Your task to perform on an android device: Go to wifi settings Image 0: 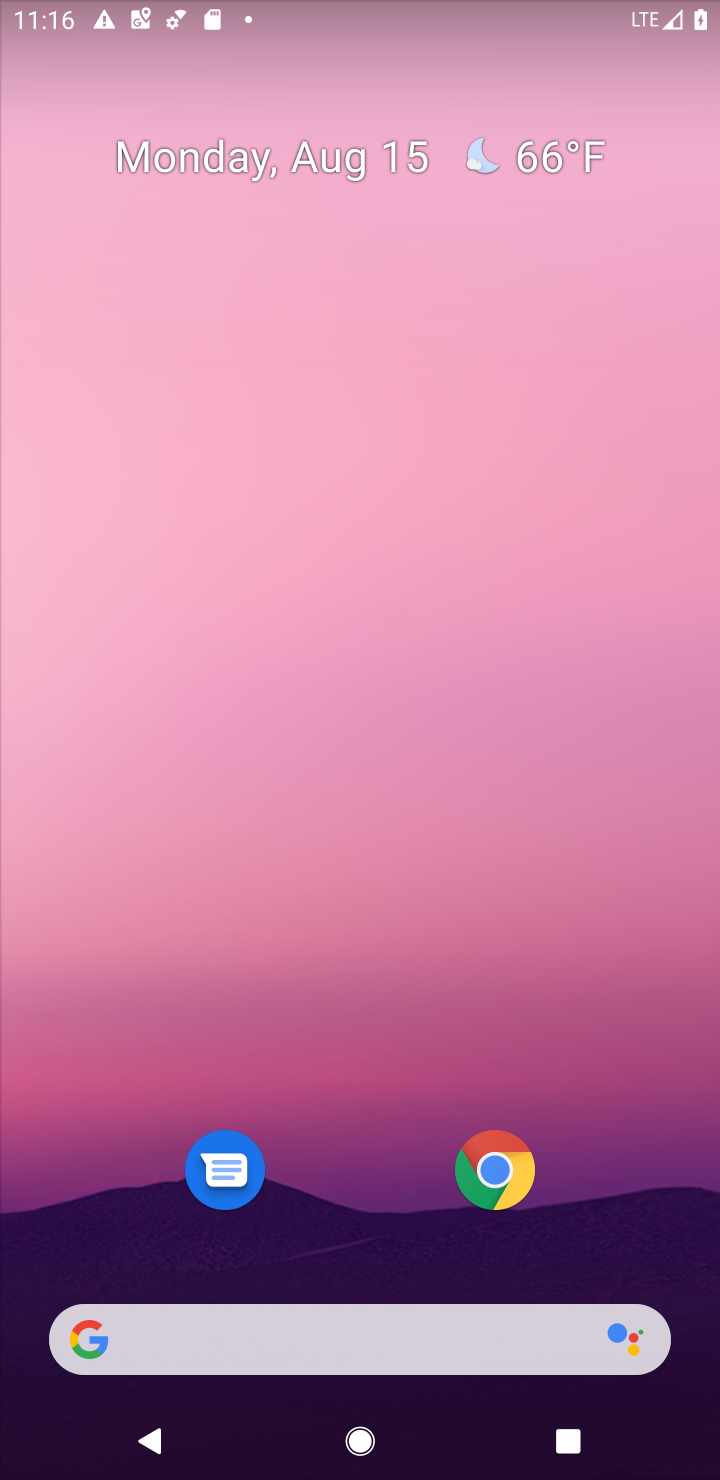
Step 0: drag from (389, 1280) to (431, 1)
Your task to perform on an android device: Go to wifi settings Image 1: 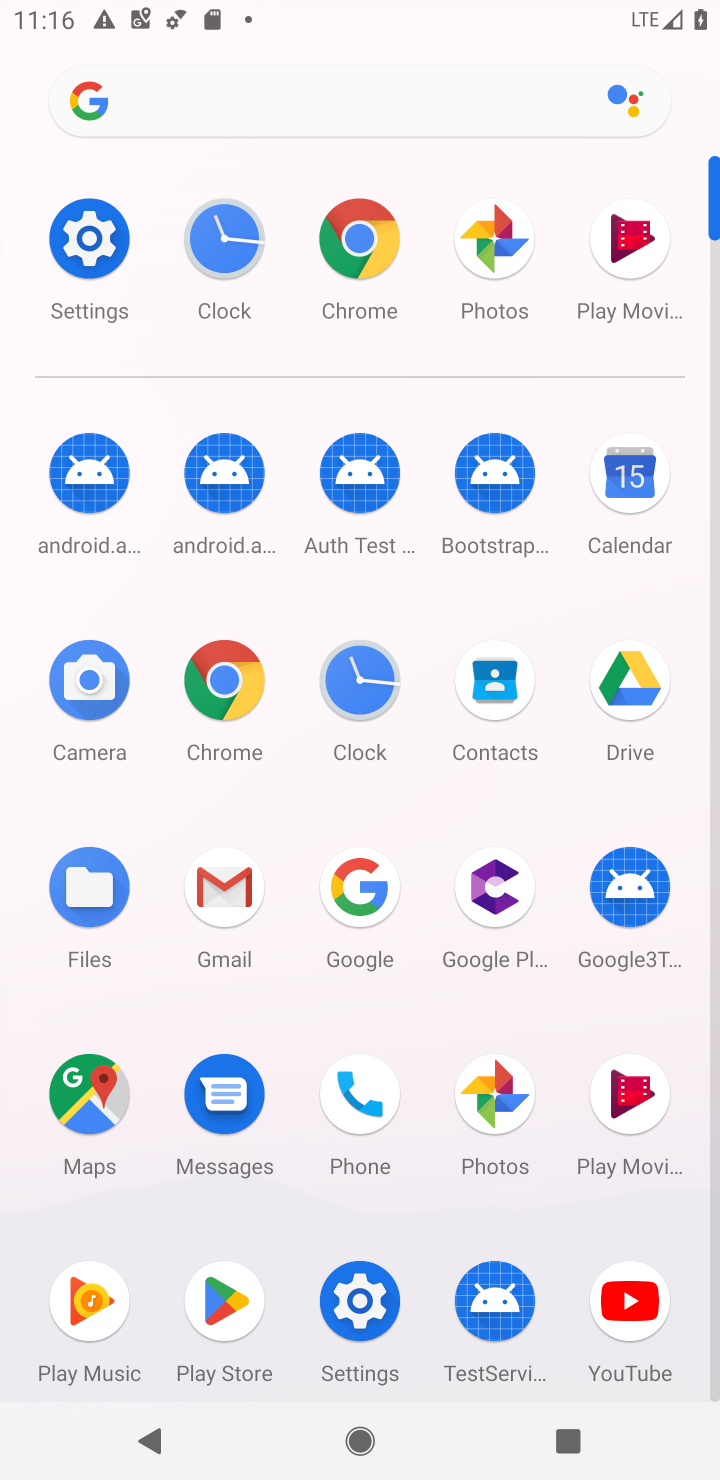
Step 1: click (82, 232)
Your task to perform on an android device: Go to wifi settings Image 2: 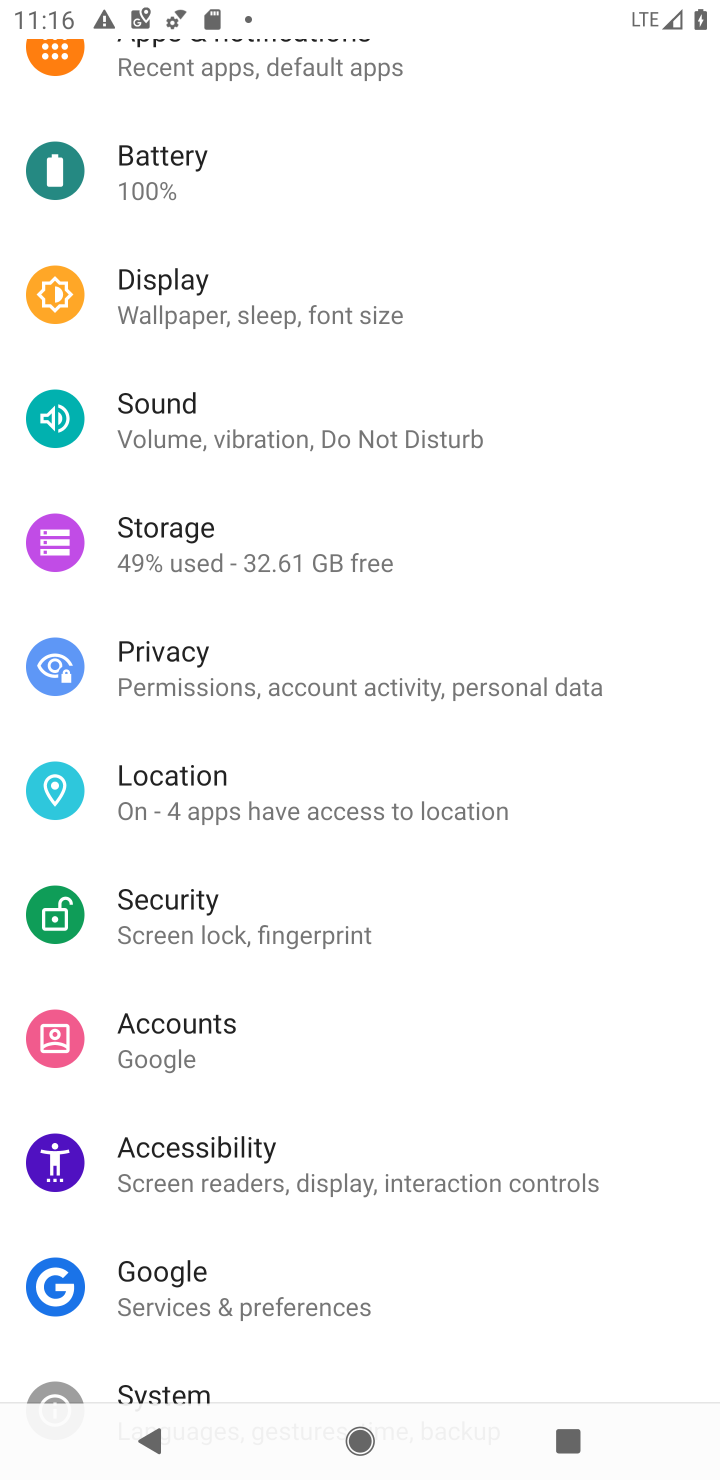
Step 2: drag from (277, 180) to (336, 1331)
Your task to perform on an android device: Go to wifi settings Image 3: 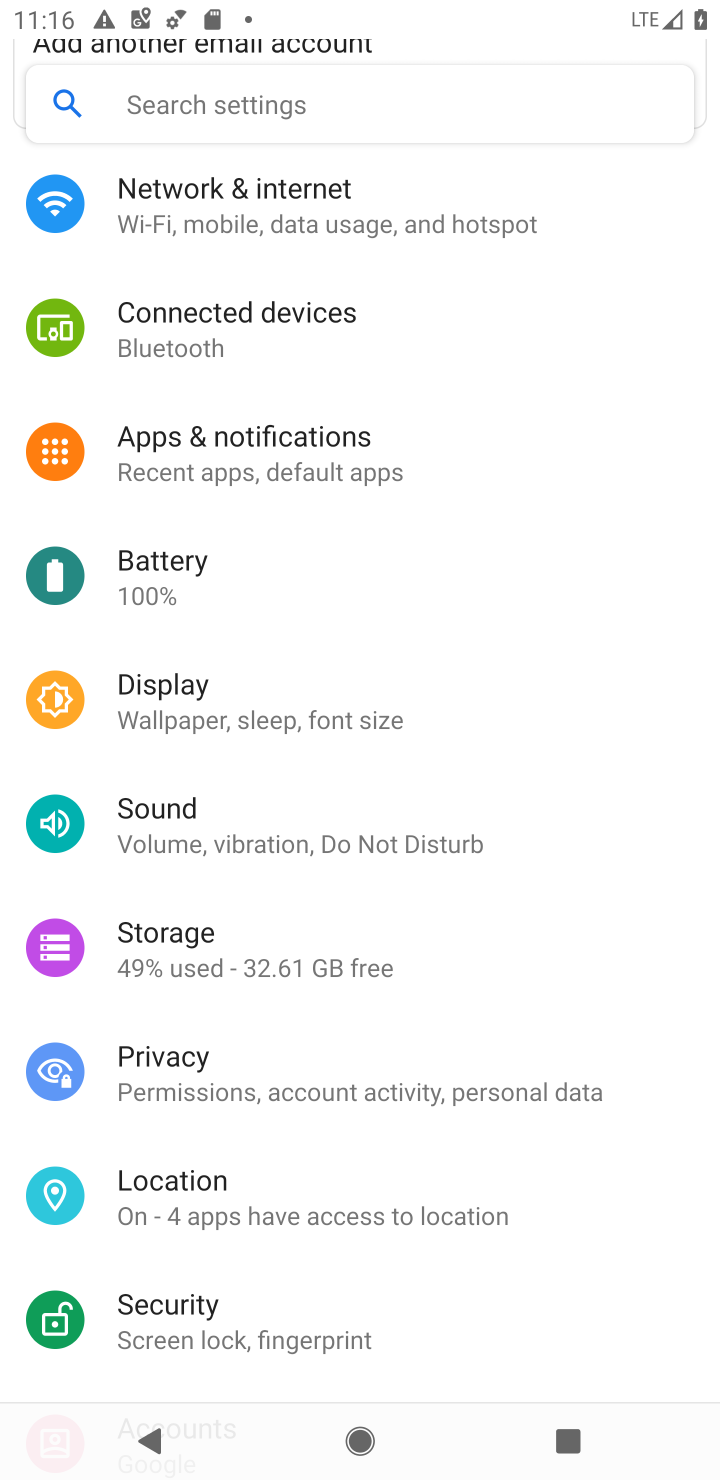
Step 3: click (344, 209)
Your task to perform on an android device: Go to wifi settings Image 4: 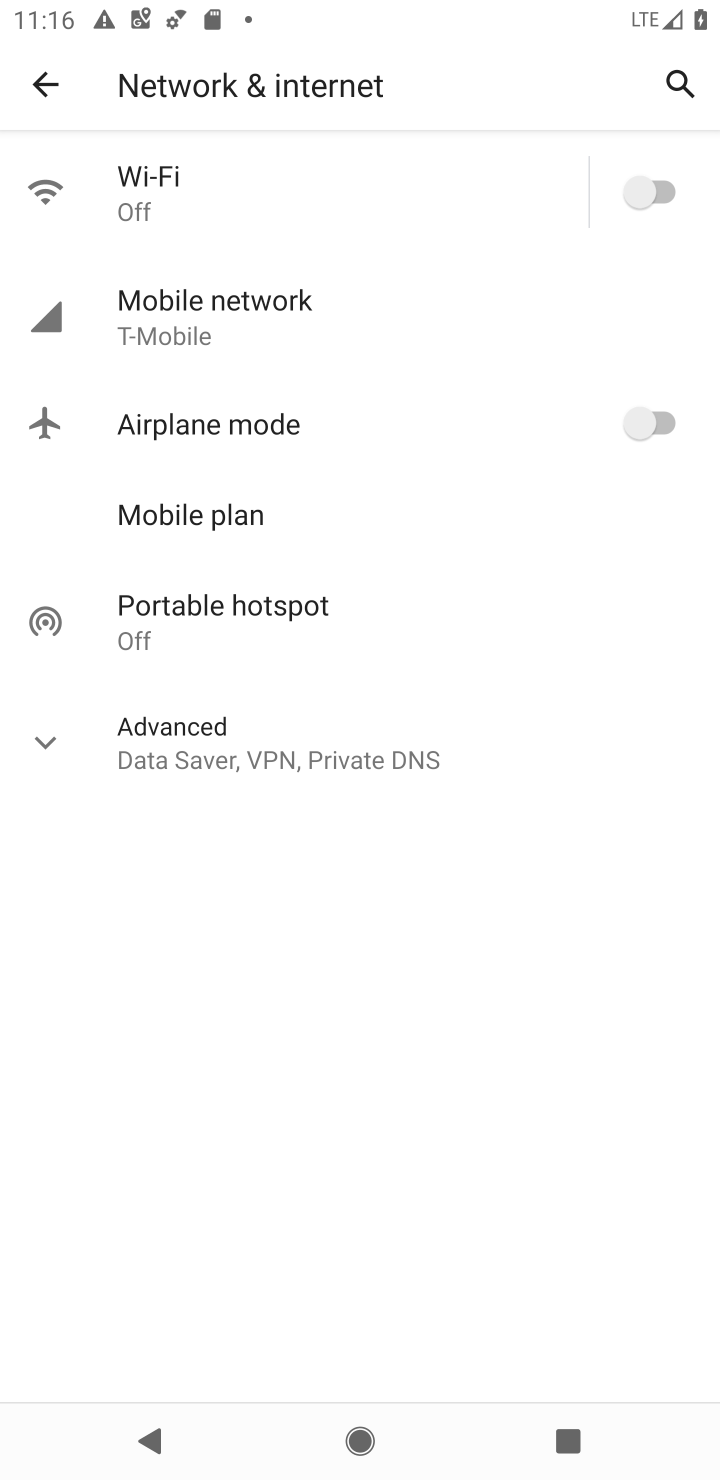
Step 4: click (253, 190)
Your task to perform on an android device: Go to wifi settings Image 5: 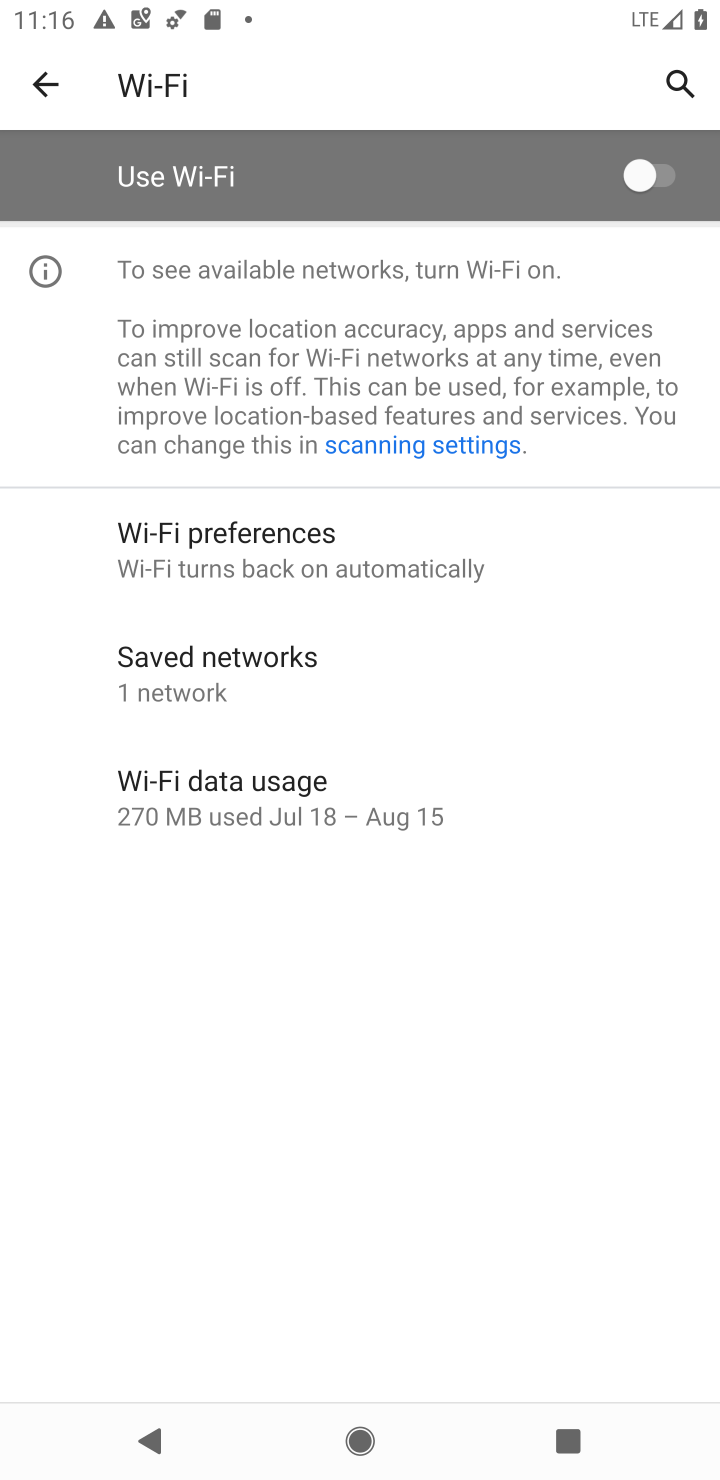
Step 5: click (653, 178)
Your task to perform on an android device: Go to wifi settings Image 6: 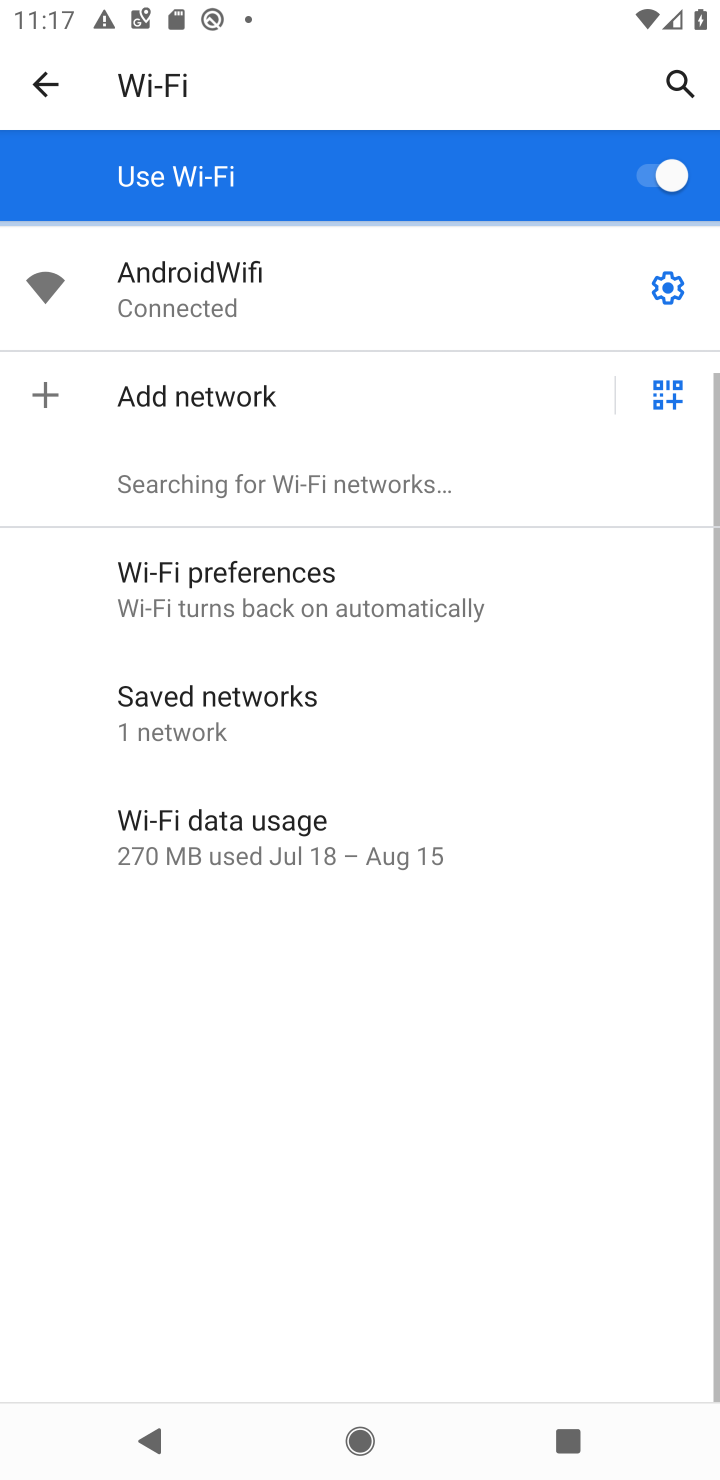
Step 6: task complete